Your task to perform on an android device: Open wifi settings Image 0: 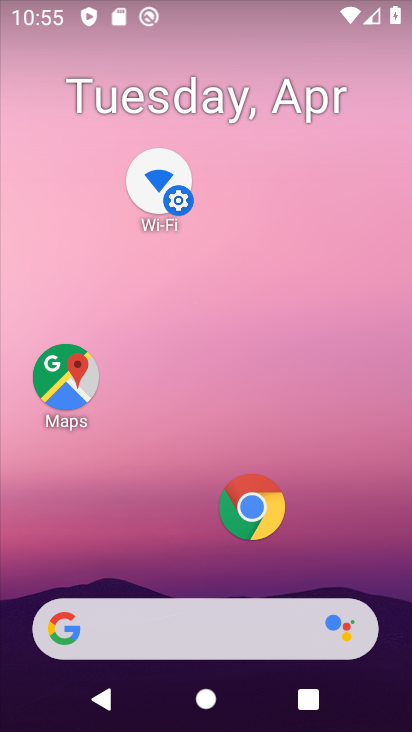
Step 0: drag from (20, 692) to (224, 224)
Your task to perform on an android device: Open wifi settings Image 1: 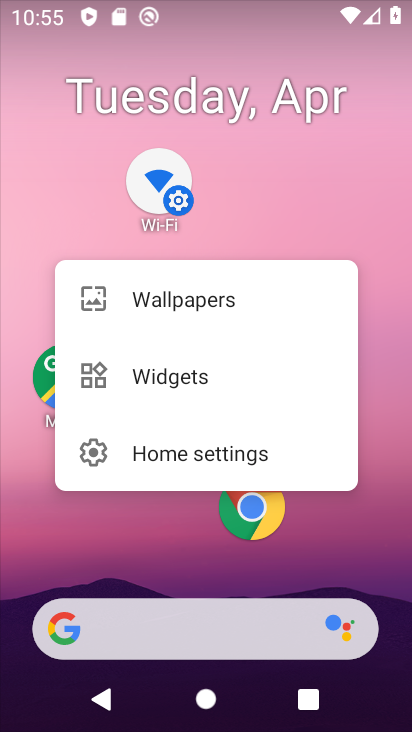
Step 1: click (169, 175)
Your task to perform on an android device: Open wifi settings Image 2: 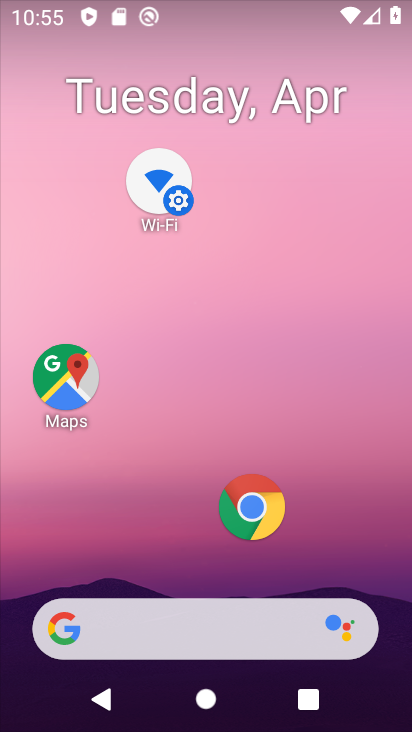
Step 2: click (183, 182)
Your task to perform on an android device: Open wifi settings Image 3: 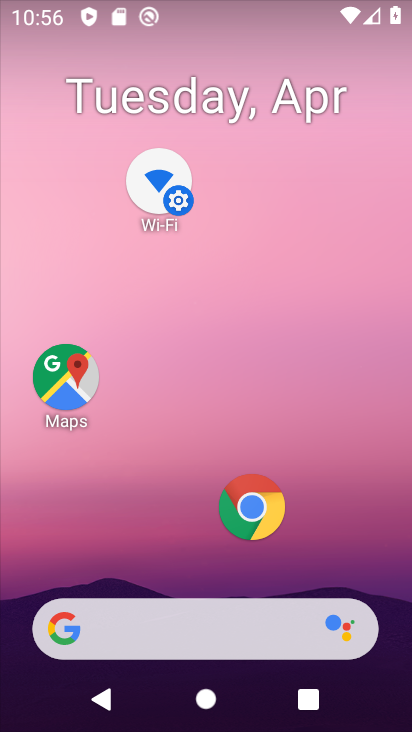
Step 3: click (158, 173)
Your task to perform on an android device: Open wifi settings Image 4: 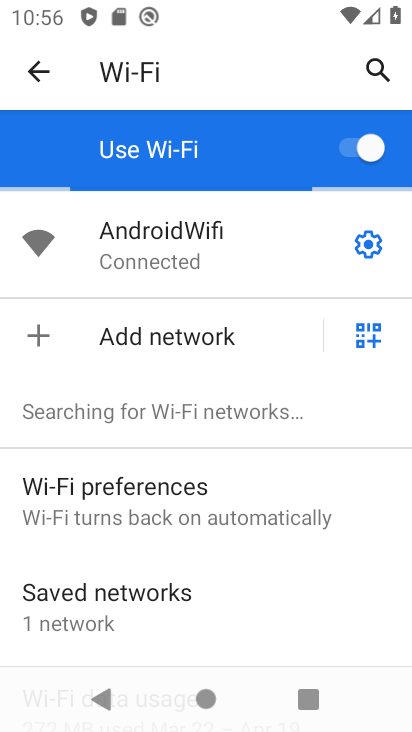
Step 4: task complete